Your task to perform on an android device: change text size in settings app Image 0: 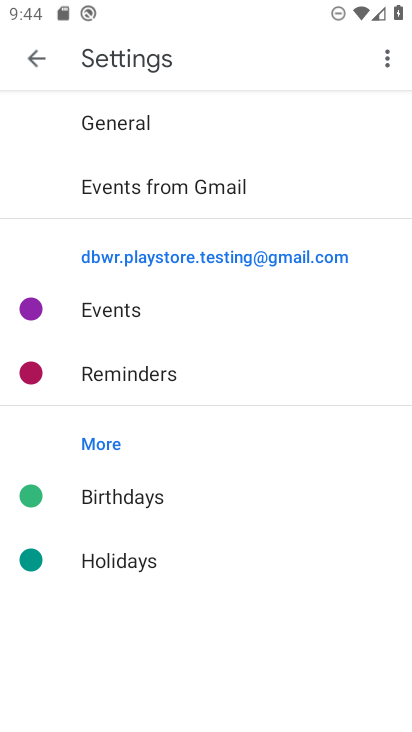
Step 0: press home button
Your task to perform on an android device: change text size in settings app Image 1: 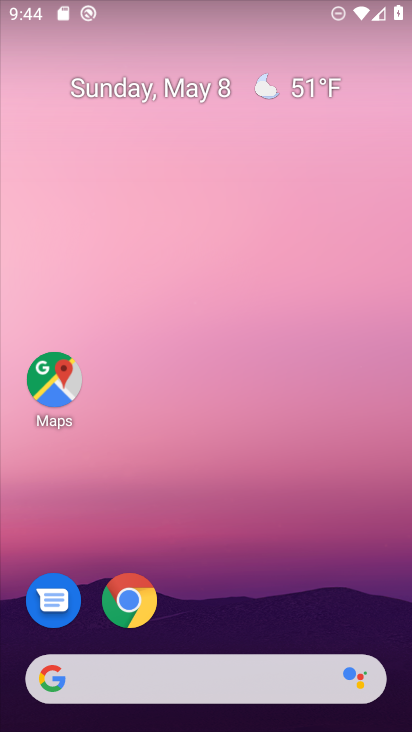
Step 1: drag from (315, 652) to (330, 4)
Your task to perform on an android device: change text size in settings app Image 2: 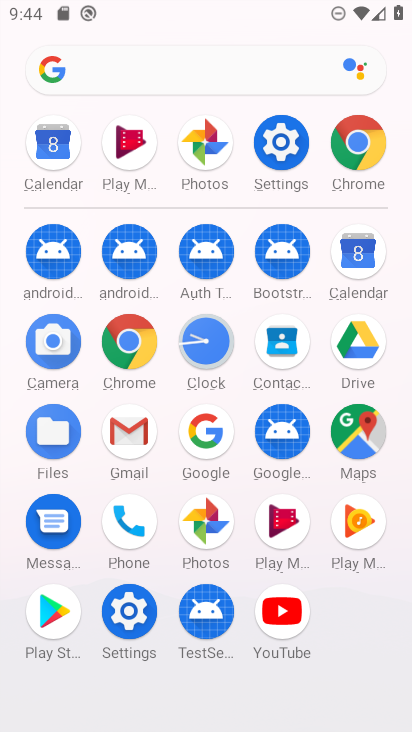
Step 2: click (280, 151)
Your task to perform on an android device: change text size in settings app Image 3: 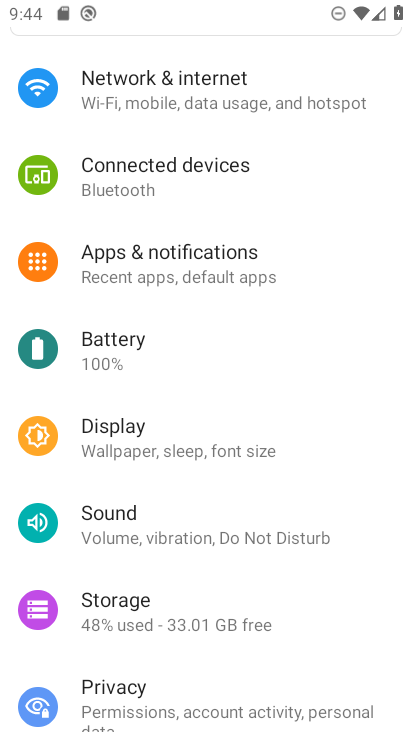
Step 3: click (104, 442)
Your task to perform on an android device: change text size in settings app Image 4: 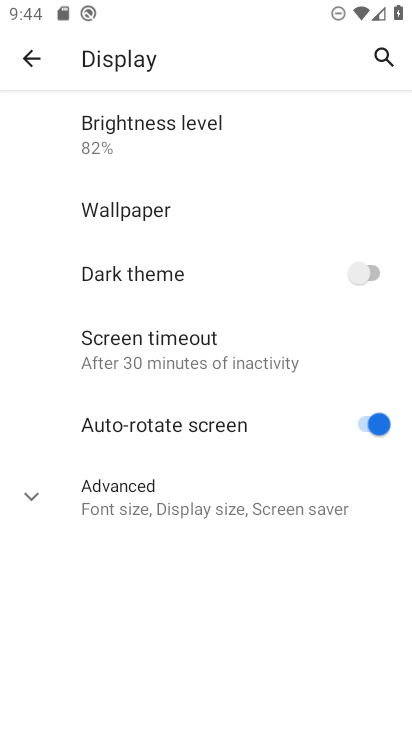
Step 4: click (36, 502)
Your task to perform on an android device: change text size in settings app Image 5: 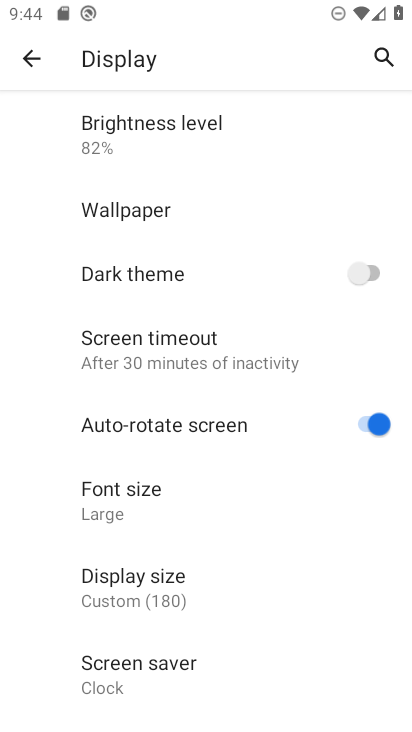
Step 5: click (92, 507)
Your task to perform on an android device: change text size in settings app Image 6: 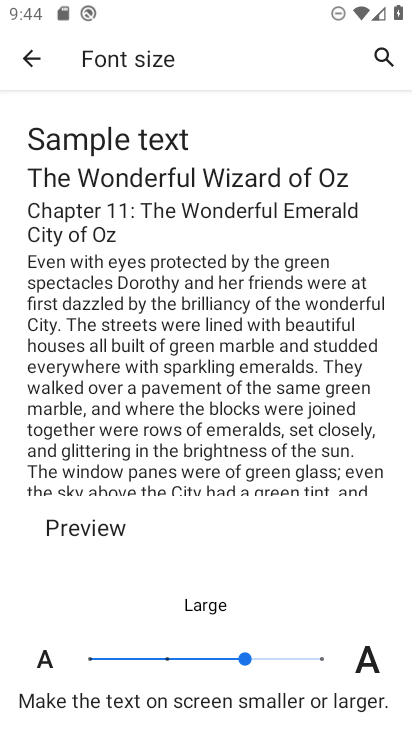
Step 6: click (172, 661)
Your task to perform on an android device: change text size in settings app Image 7: 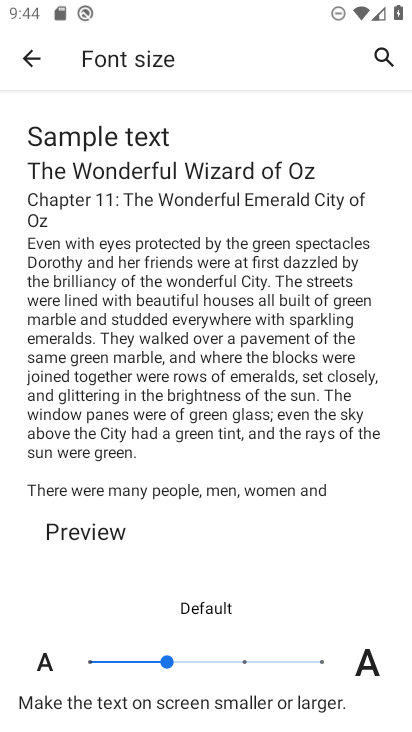
Step 7: task complete